Your task to perform on an android device: Empty the shopping cart on walmart.com. Add "bose soundlink" to the cart on walmart.com Image 0: 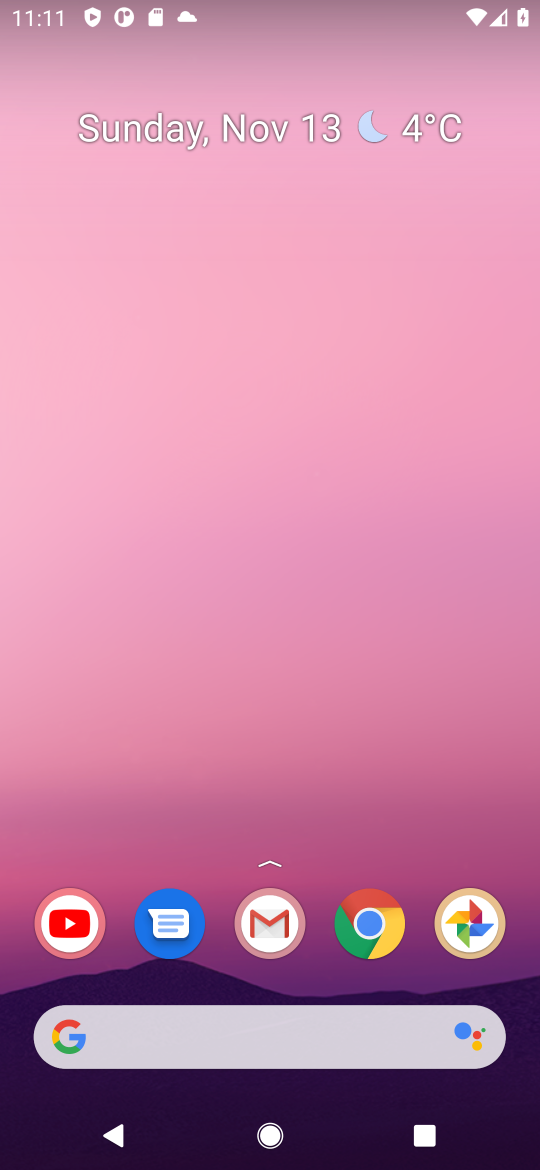
Step 0: click (381, 932)
Your task to perform on an android device: Empty the shopping cart on walmart.com. Add "bose soundlink" to the cart on walmart.com Image 1: 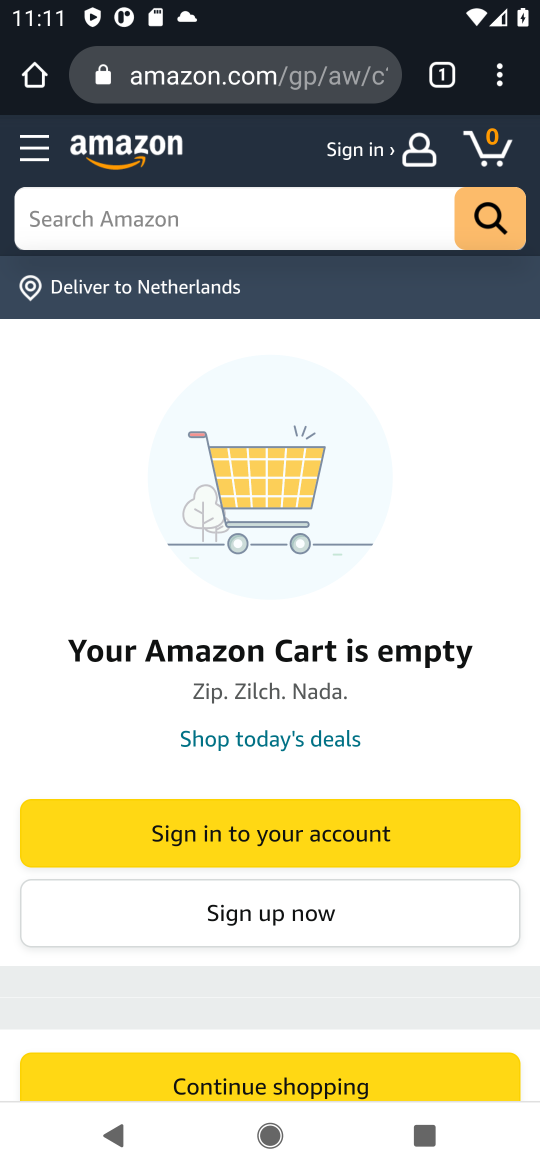
Step 1: click (296, 94)
Your task to perform on an android device: Empty the shopping cart on walmart.com. Add "bose soundlink" to the cart on walmart.com Image 2: 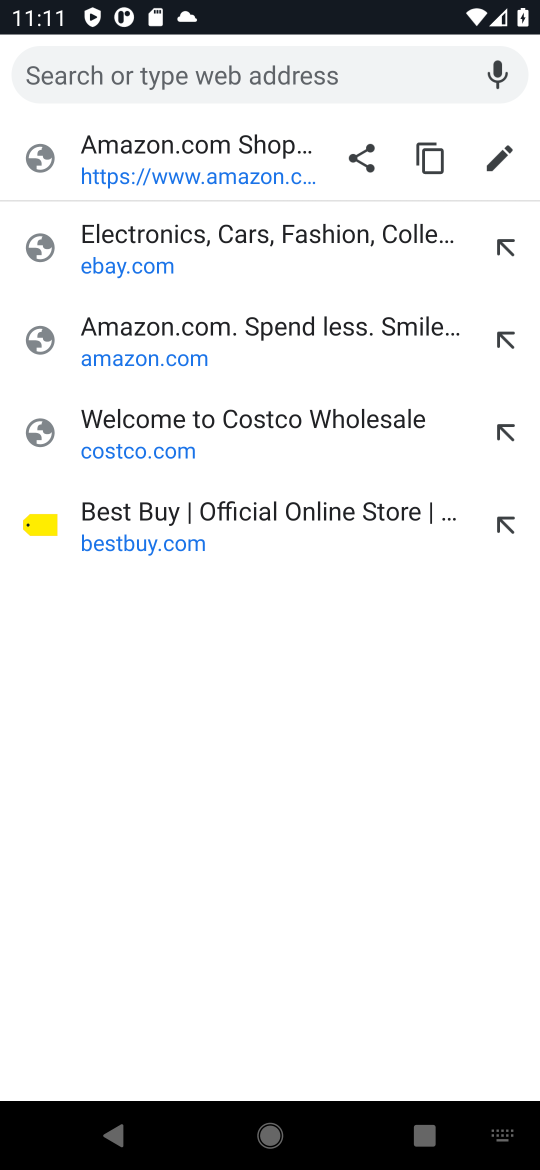
Step 2: type "walmart.com"
Your task to perform on an android device: Empty the shopping cart on walmart.com. Add "bose soundlink" to the cart on walmart.com Image 3: 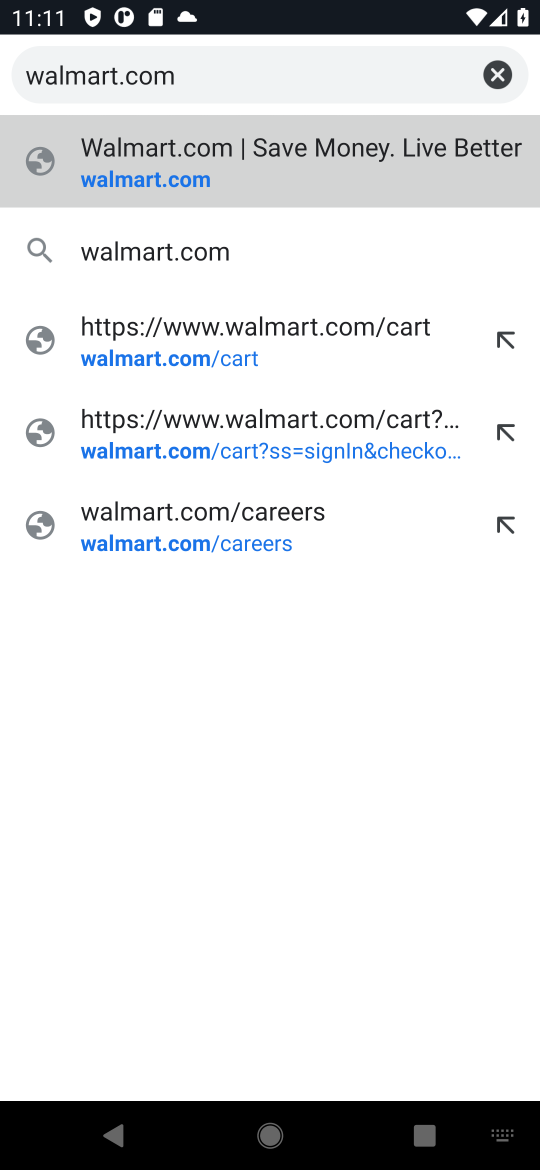
Step 3: click (162, 243)
Your task to perform on an android device: Empty the shopping cart on walmart.com. Add "bose soundlink" to the cart on walmart.com Image 4: 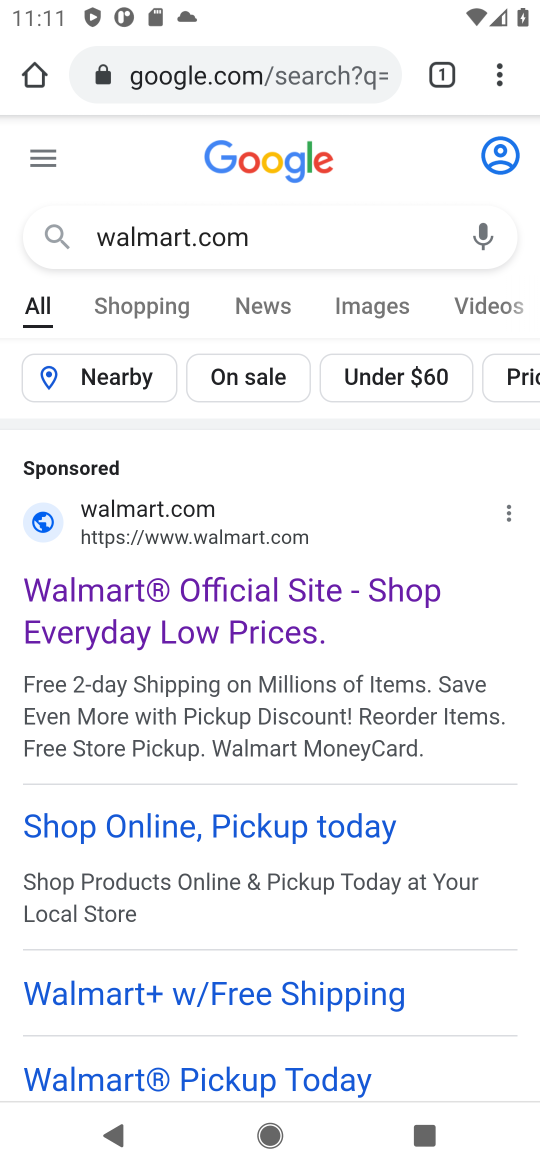
Step 4: click (236, 534)
Your task to perform on an android device: Empty the shopping cart on walmart.com. Add "bose soundlink" to the cart on walmart.com Image 5: 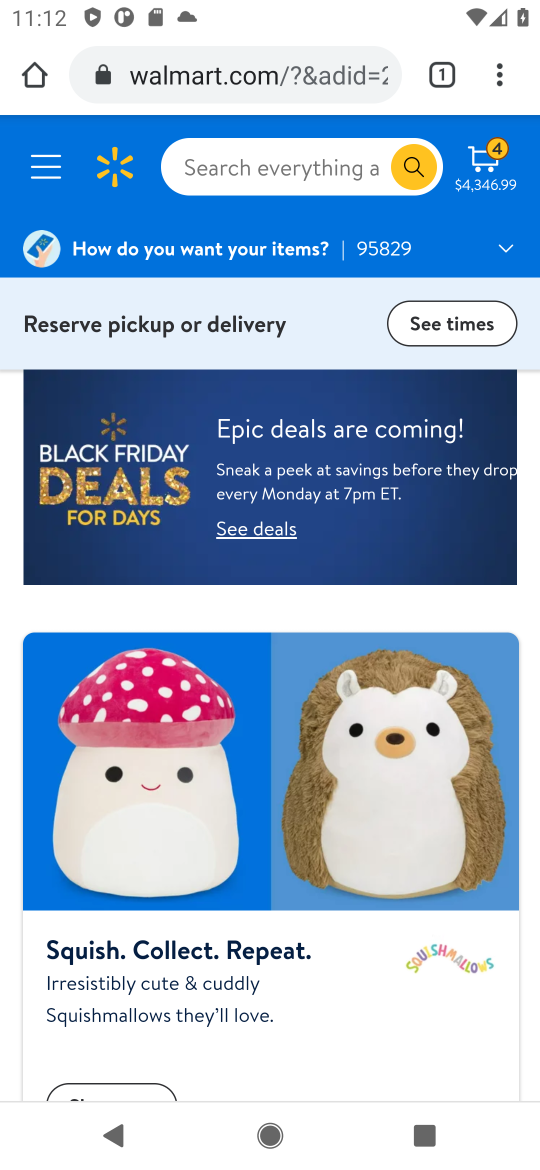
Step 5: click (476, 157)
Your task to perform on an android device: Empty the shopping cart on walmart.com. Add "bose soundlink" to the cart on walmart.com Image 6: 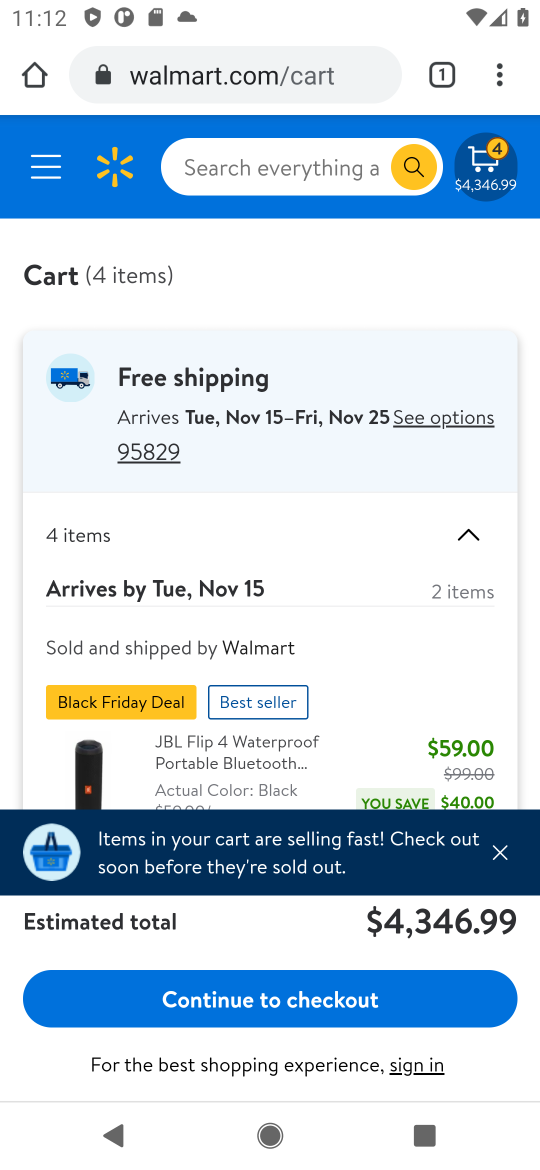
Step 6: drag from (313, 629) to (366, 238)
Your task to perform on an android device: Empty the shopping cart on walmart.com. Add "bose soundlink" to the cart on walmart.com Image 7: 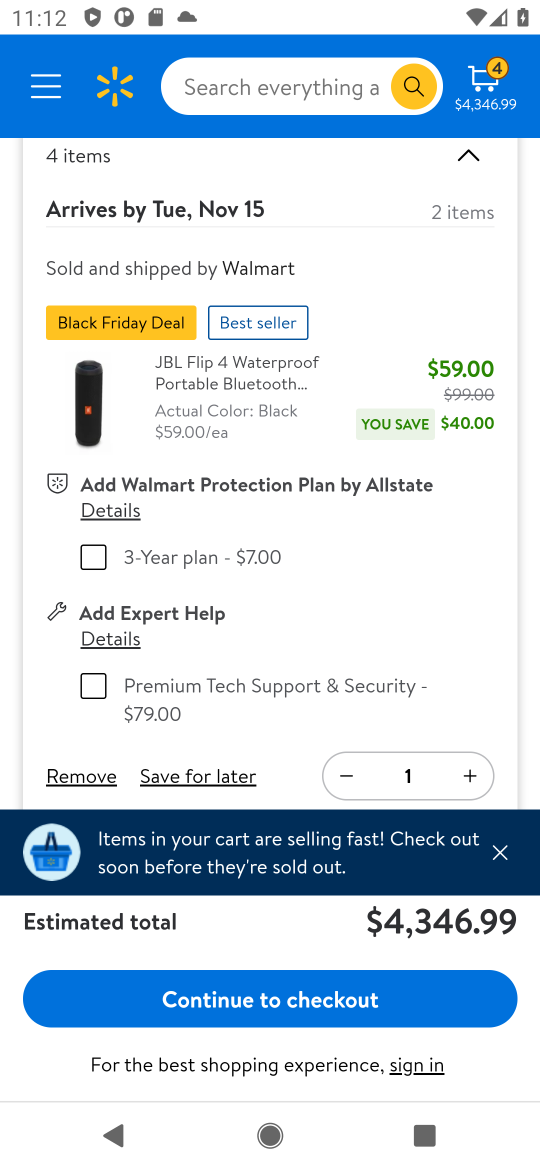
Step 7: drag from (312, 641) to (321, 452)
Your task to perform on an android device: Empty the shopping cart on walmart.com. Add "bose soundlink" to the cart on walmart.com Image 8: 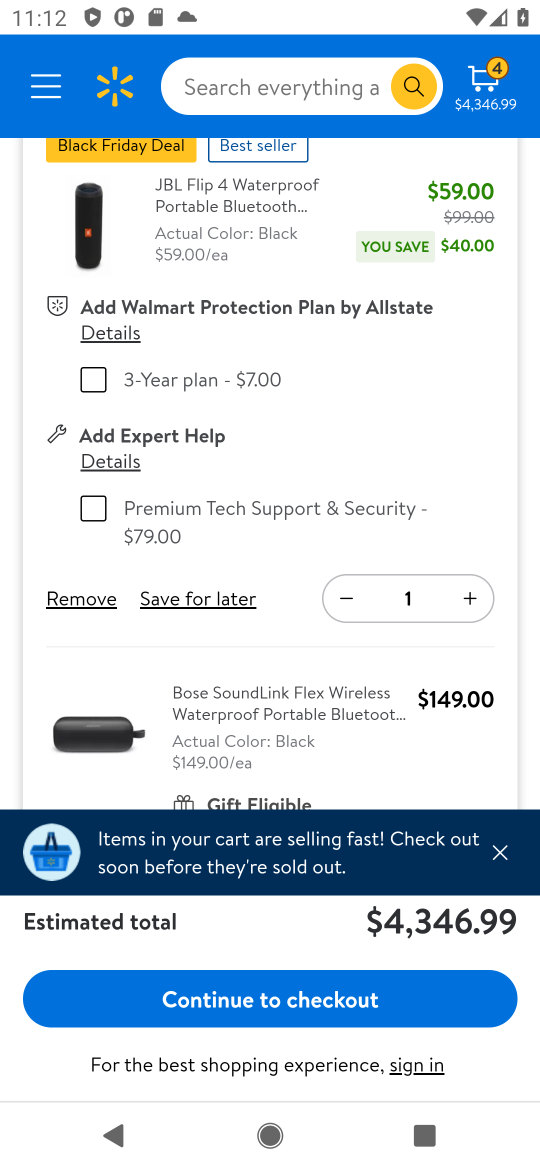
Step 8: click (95, 592)
Your task to perform on an android device: Empty the shopping cart on walmart.com. Add "bose soundlink" to the cart on walmart.com Image 9: 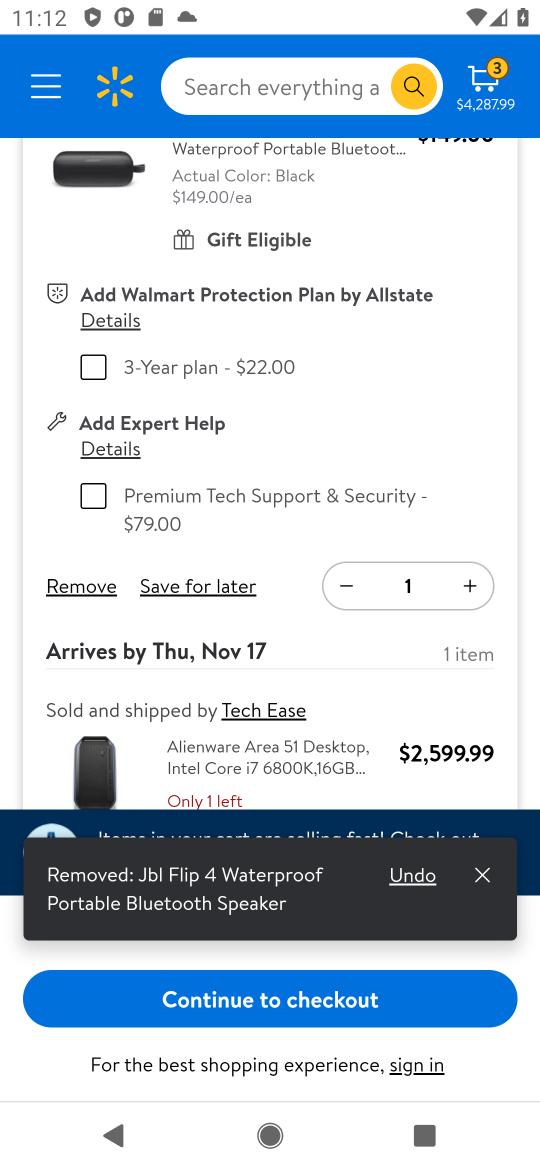
Step 9: click (93, 560)
Your task to perform on an android device: Empty the shopping cart on walmart.com. Add "bose soundlink" to the cart on walmart.com Image 10: 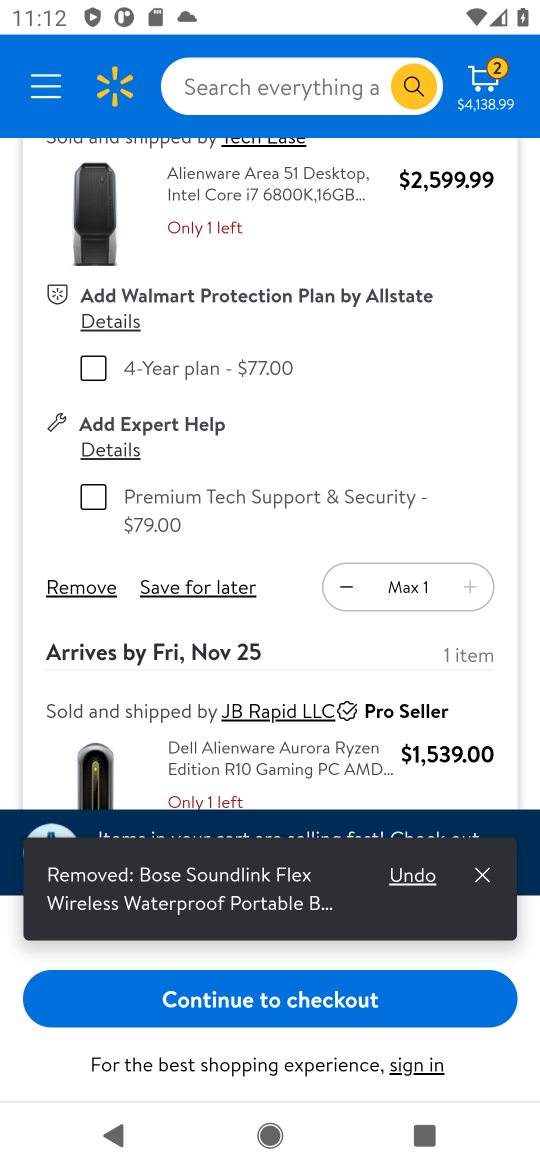
Step 10: click (90, 587)
Your task to perform on an android device: Empty the shopping cart on walmart.com. Add "bose soundlink" to the cart on walmart.com Image 11: 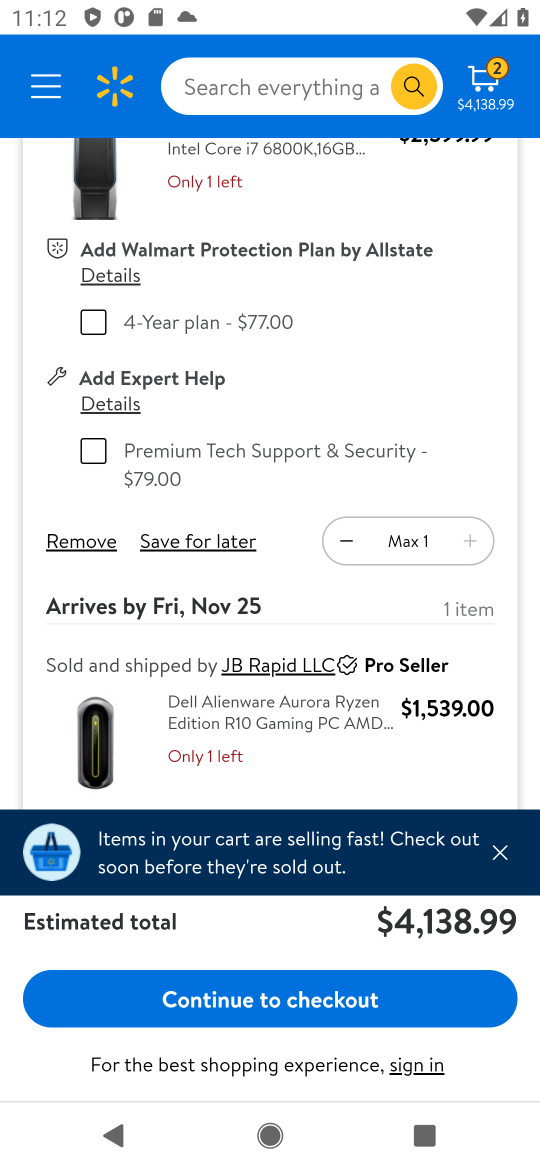
Step 11: click (79, 541)
Your task to perform on an android device: Empty the shopping cart on walmart.com. Add "bose soundlink" to the cart on walmart.com Image 12: 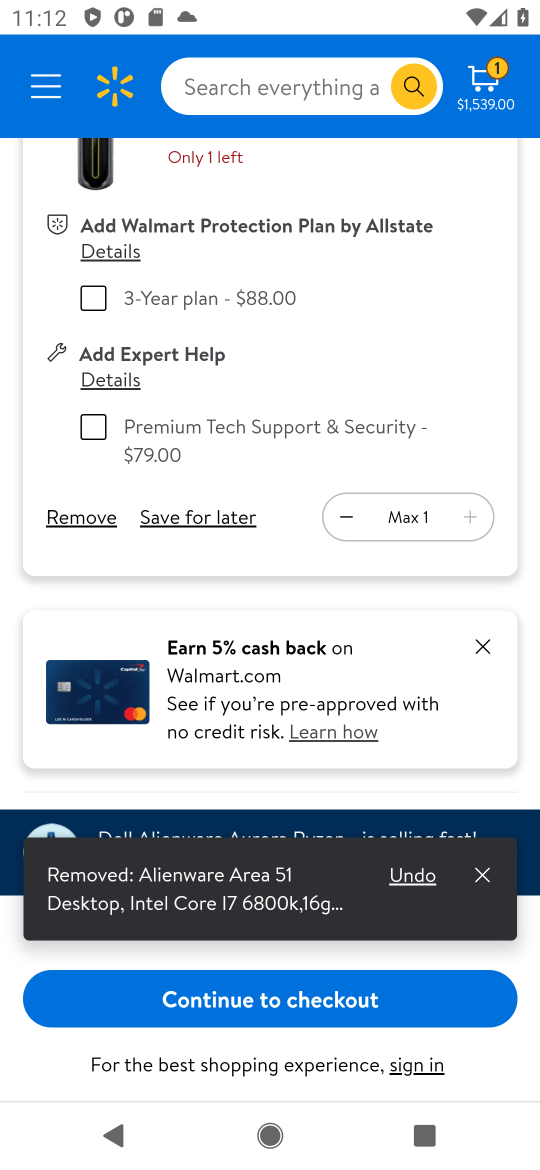
Step 12: click (90, 514)
Your task to perform on an android device: Empty the shopping cart on walmart.com. Add "bose soundlink" to the cart on walmart.com Image 13: 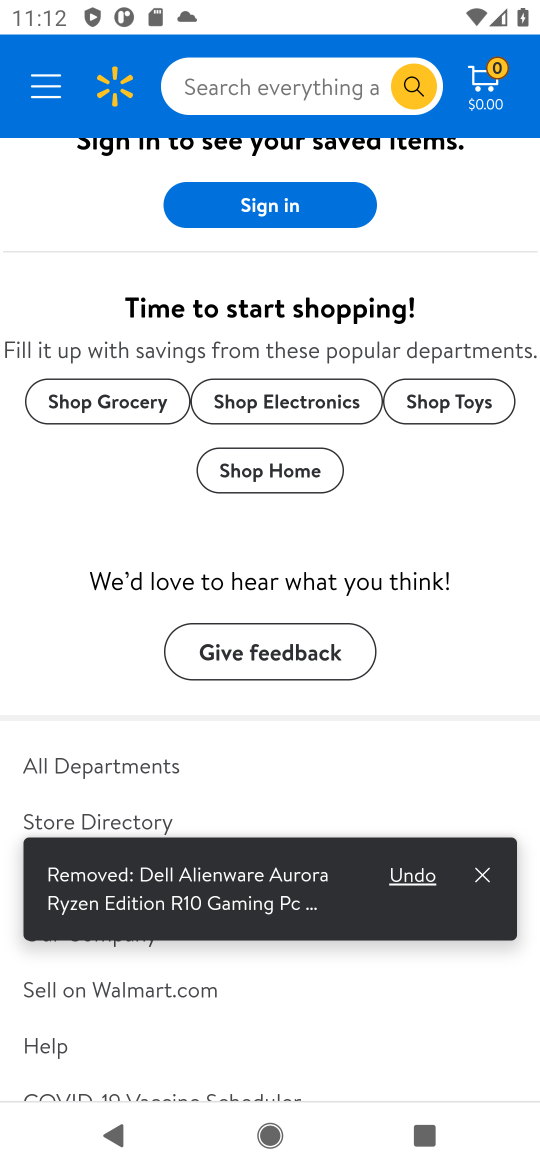
Step 13: drag from (451, 247) to (457, 539)
Your task to perform on an android device: Empty the shopping cart on walmart.com. Add "bose soundlink" to the cart on walmart.com Image 14: 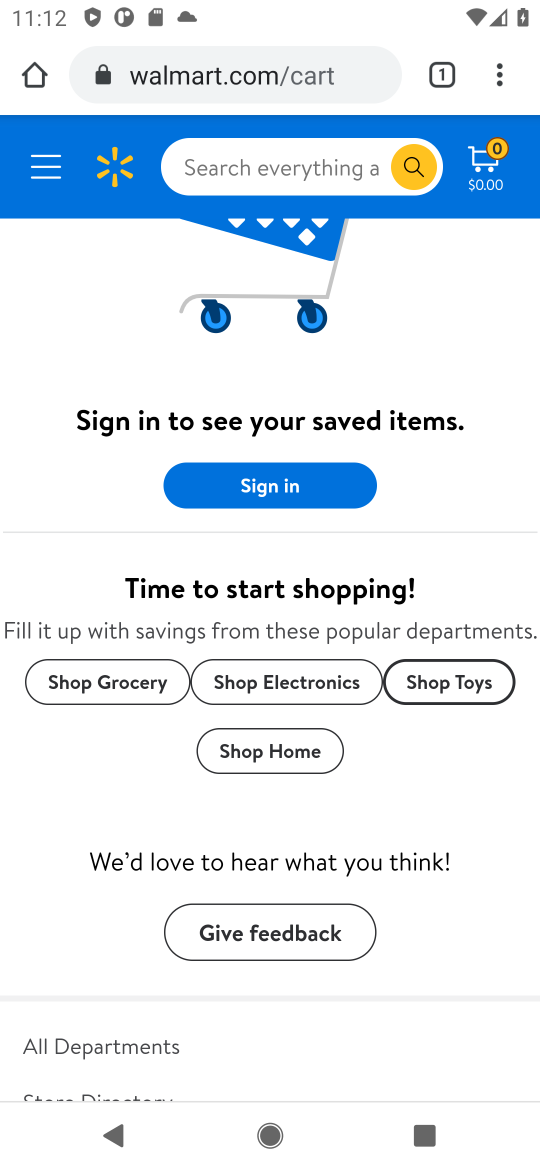
Step 14: click (262, 159)
Your task to perform on an android device: Empty the shopping cart on walmart.com. Add "bose soundlink" to the cart on walmart.com Image 15: 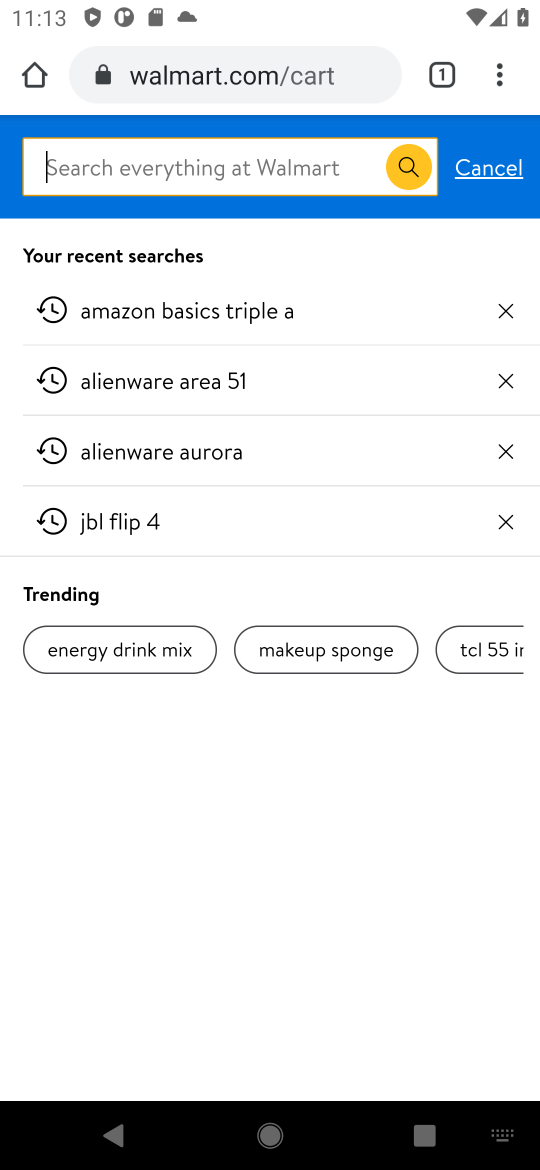
Step 15: type "bose soundlink"
Your task to perform on an android device: Empty the shopping cart on walmart.com. Add "bose soundlink" to the cart on walmart.com Image 16: 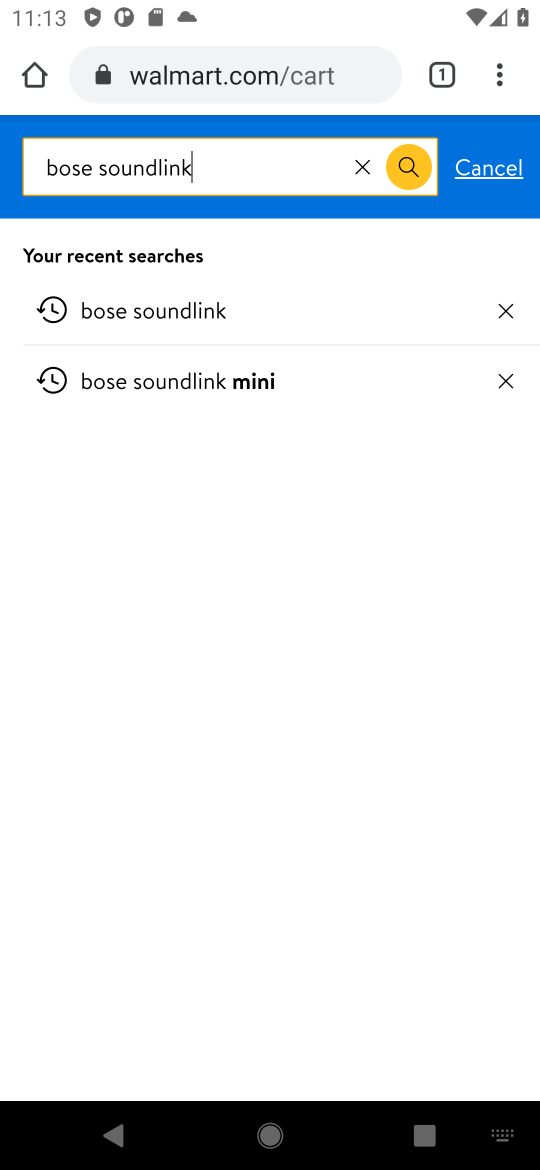
Step 16: press enter
Your task to perform on an android device: Empty the shopping cart on walmart.com. Add "bose soundlink" to the cart on walmart.com Image 17: 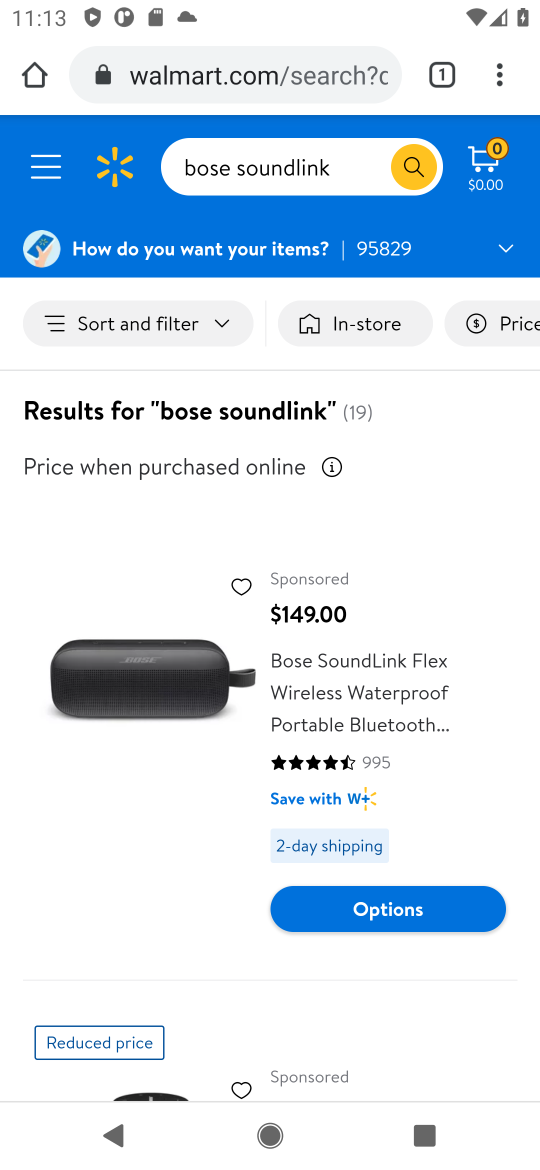
Step 17: click (191, 685)
Your task to perform on an android device: Empty the shopping cart on walmart.com. Add "bose soundlink" to the cart on walmart.com Image 18: 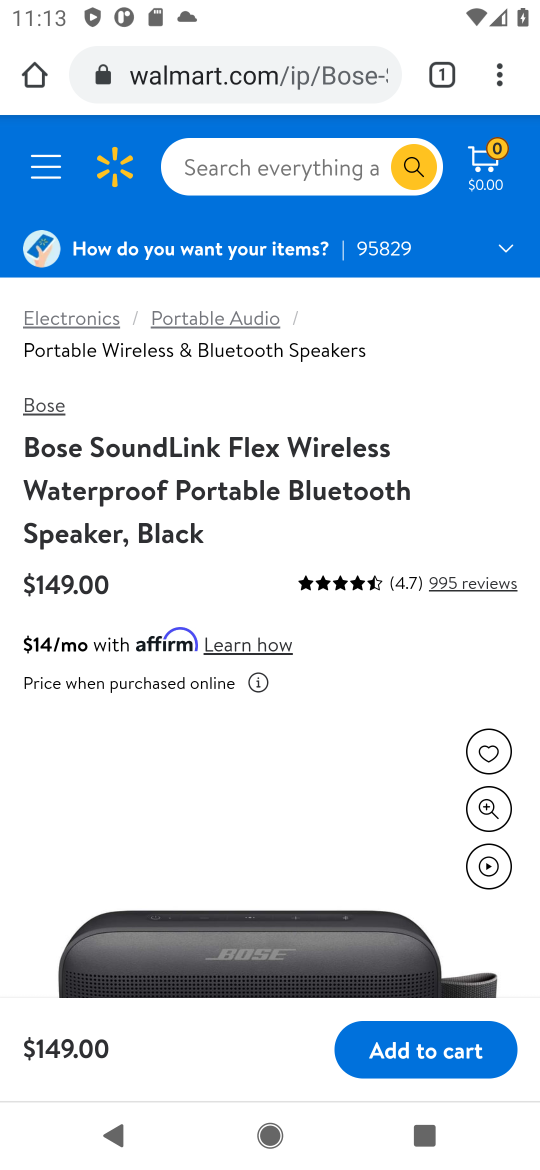
Step 18: click (414, 1045)
Your task to perform on an android device: Empty the shopping cart on walmart.com. Add "bose soundlink" to the cart on walmart.com Image 19: 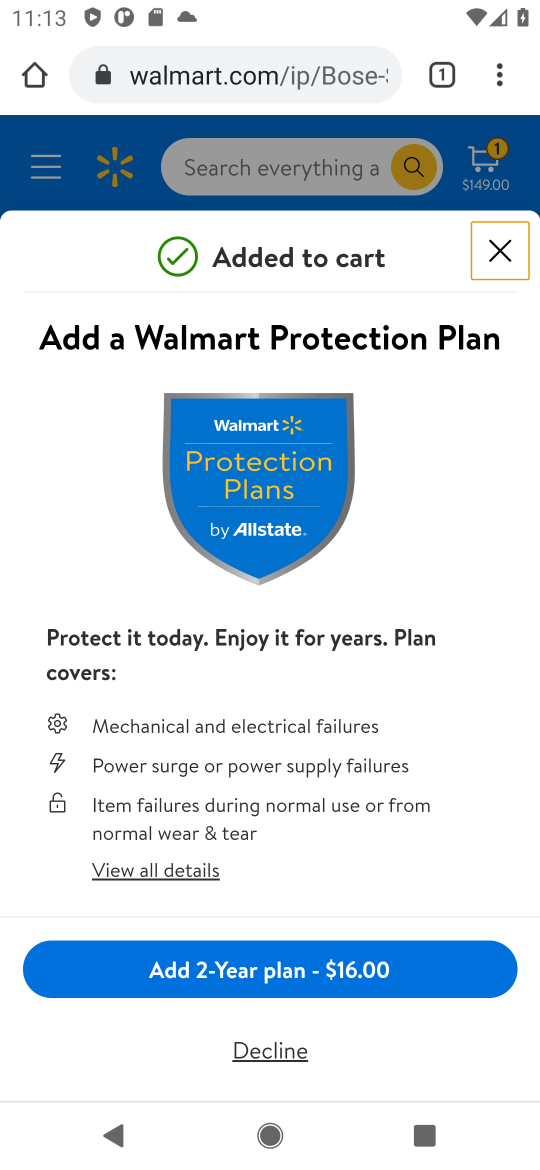
Step 19: task complete